Your task to perform on an android device: What's the time? Image 0: 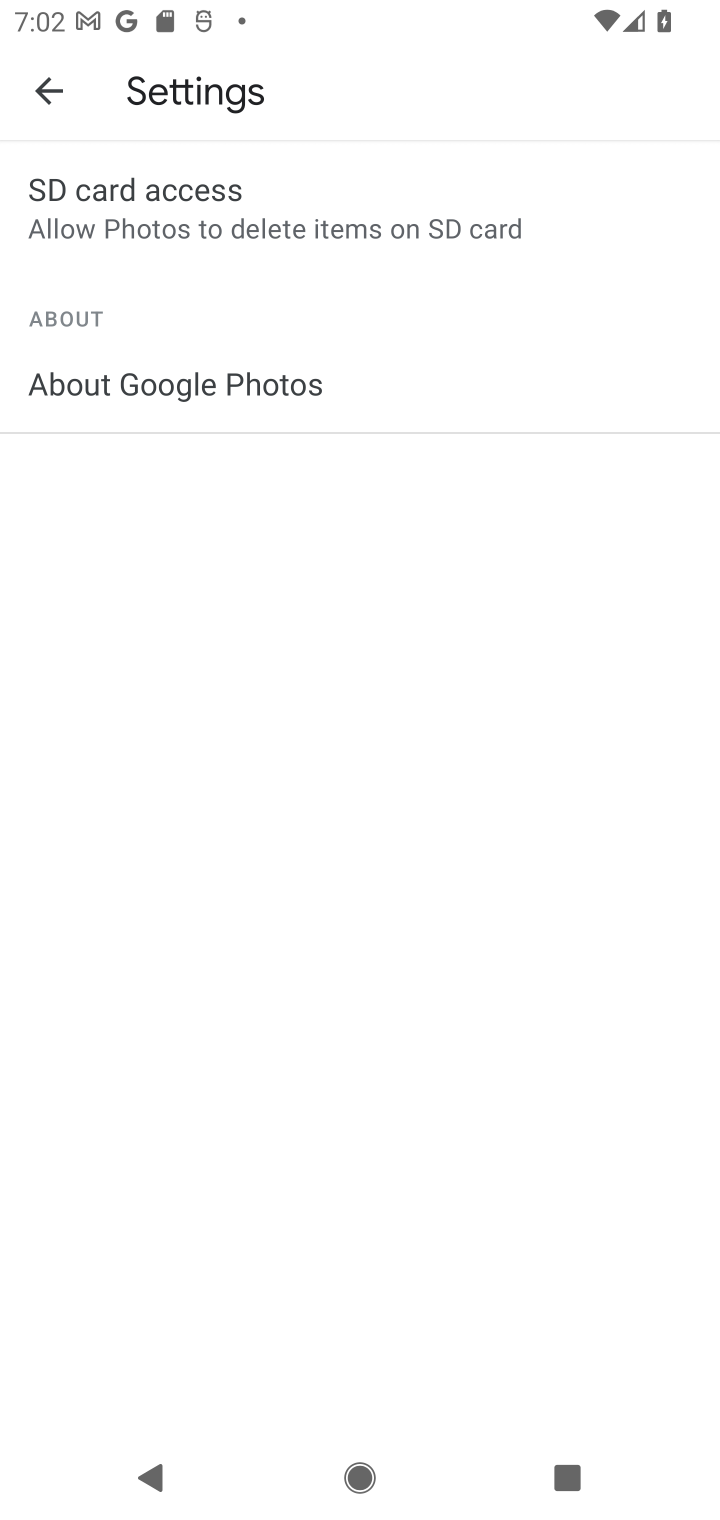
Step 0: press home button
Your task to perform on an android device: What's the time? Image 1: 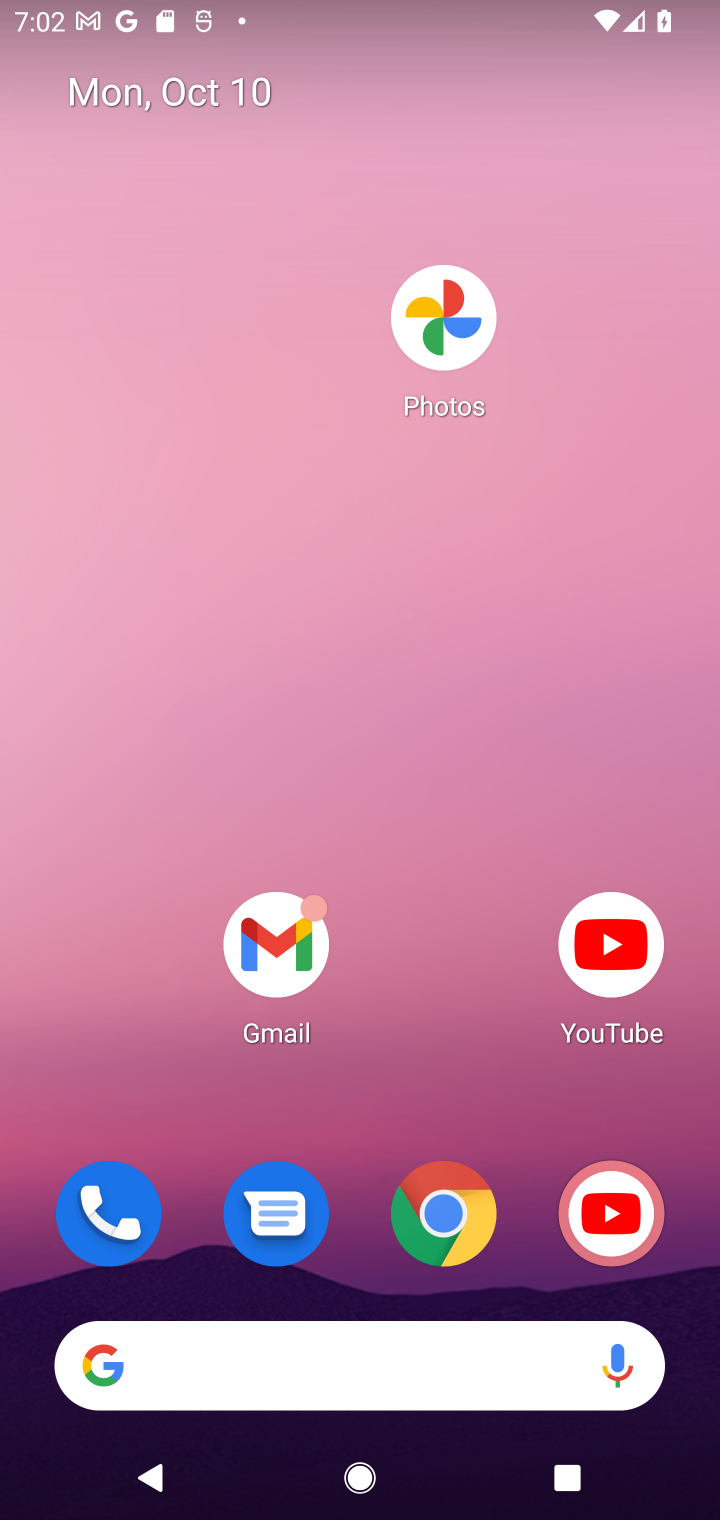
Step 1: drag from (374, 1108) to (379, 131)
Your task to perform on an android device: What's the time? Image 2: 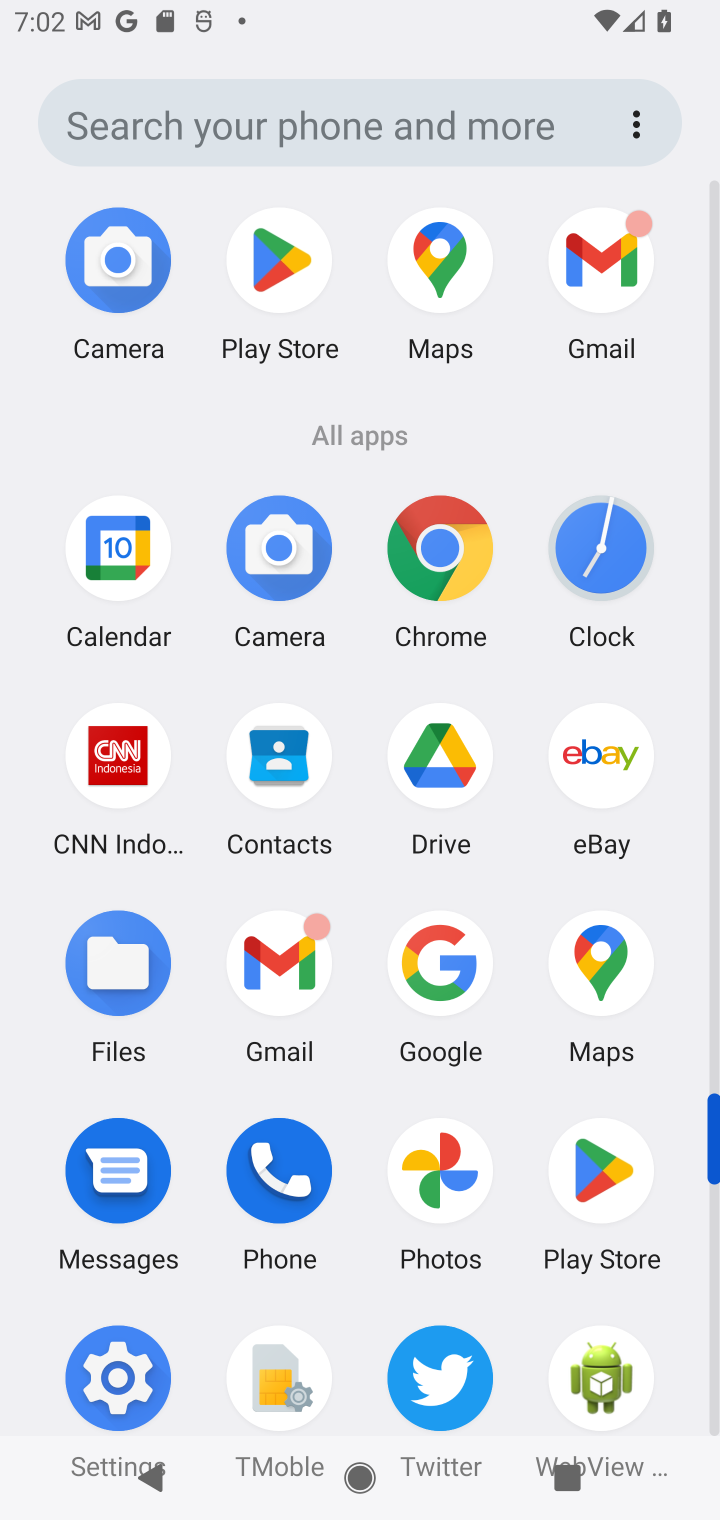
Step 2: click (589, 541)
Your task to perform on an android device: What's the time? Image 3: 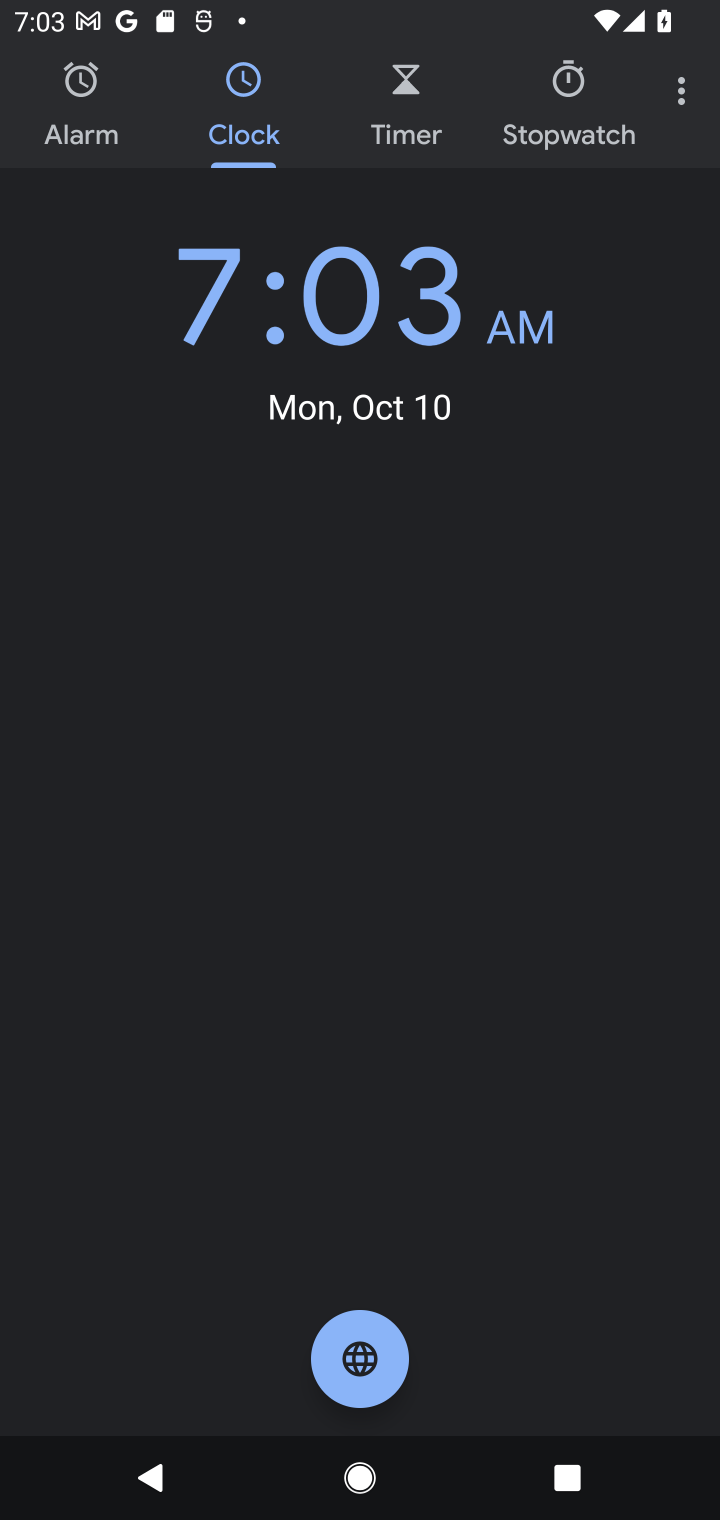
Step 3: task complete